Your task to perform on an android device: uninstall "Grab" Image 0: 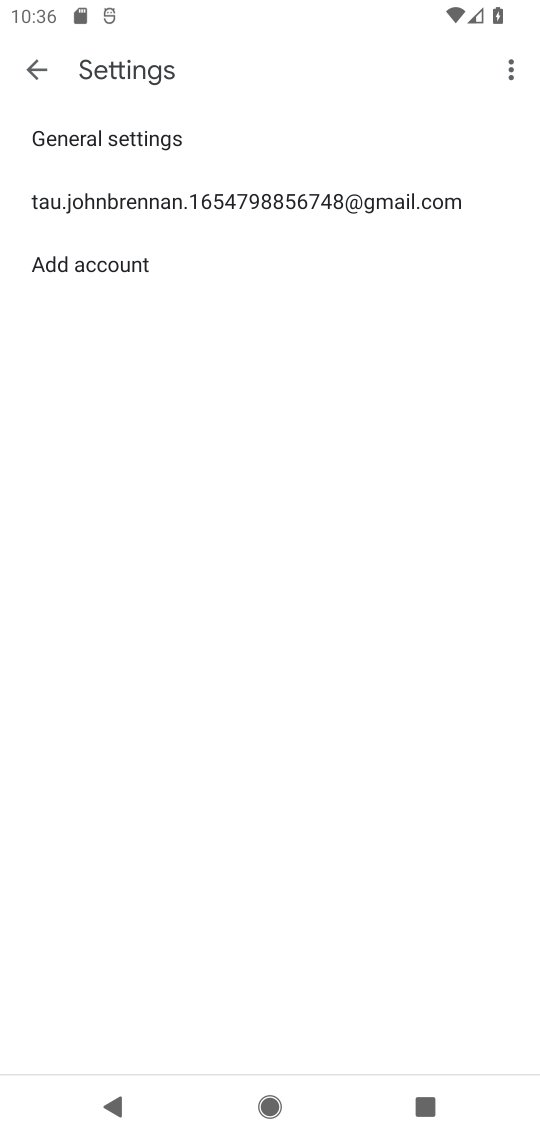
Step 0: press home button
Your task to perform on an android device: uninstall "Grab" Image 1: 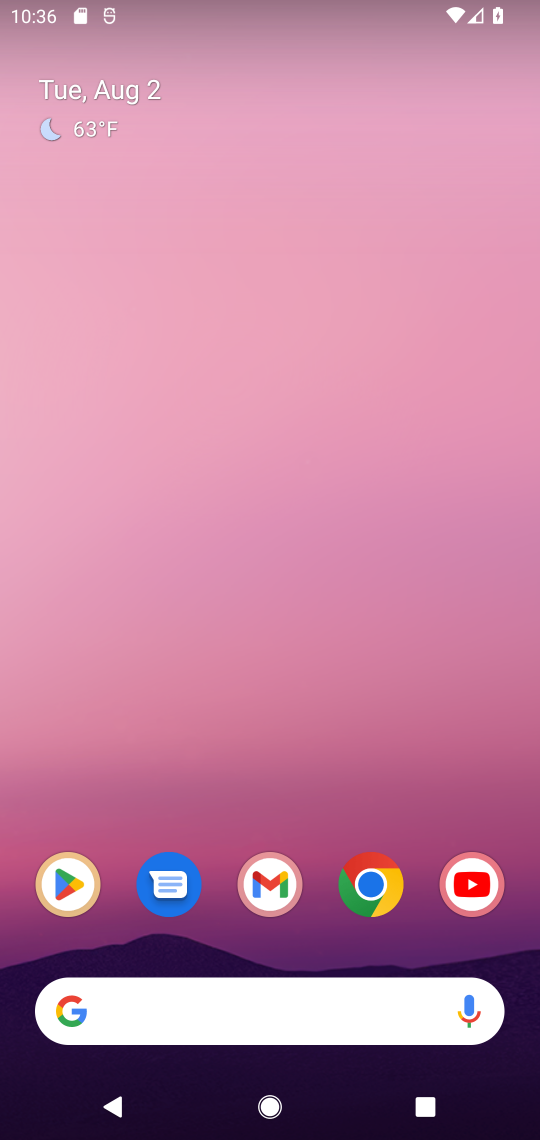
Step 1: click (76, 903)
Your task to perform on an android device: uninstall "Grab" Image 2: 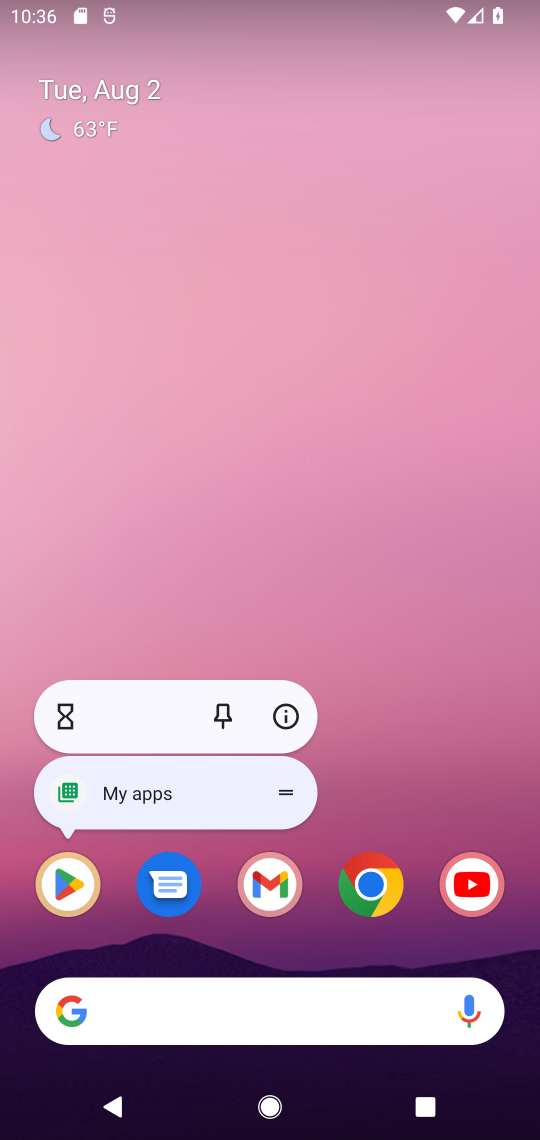
Step 2: click (73, 903)
Your task to perform on an android device: uninstall "Grab" Image 3: 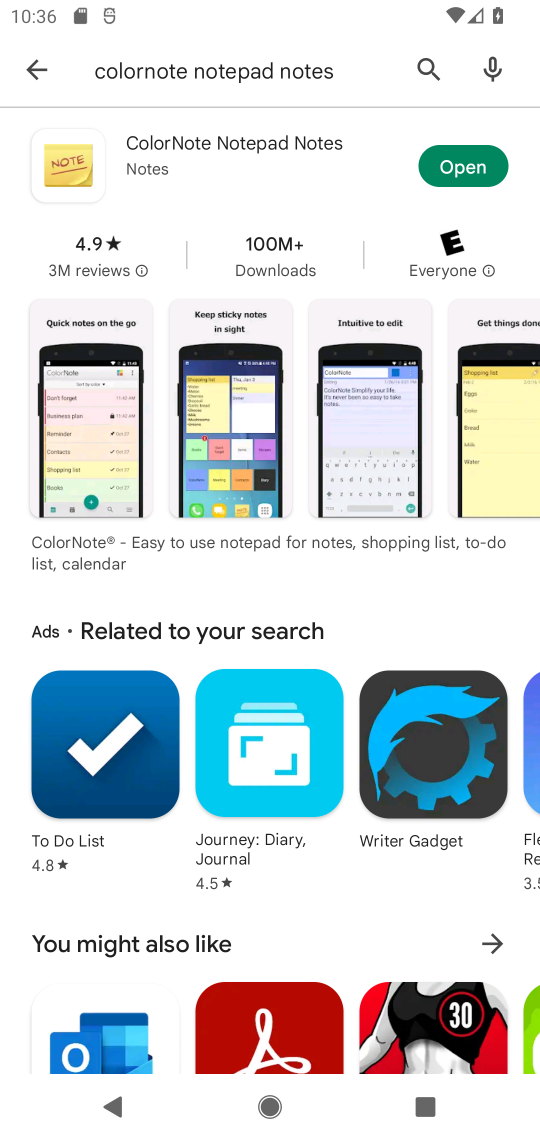
Step 3: click (278, 72)
Your task to perform on an android device: uninstall "Grab" Image 4: 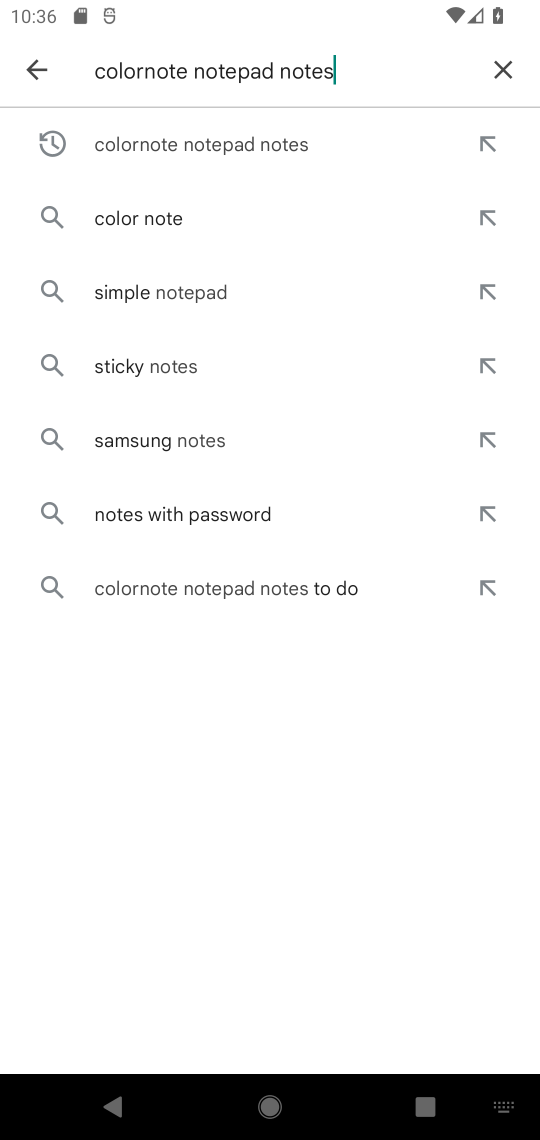
Step 4: click (508, 69)
Your task to perform on an android device: uninstall "Grab" Image 5: 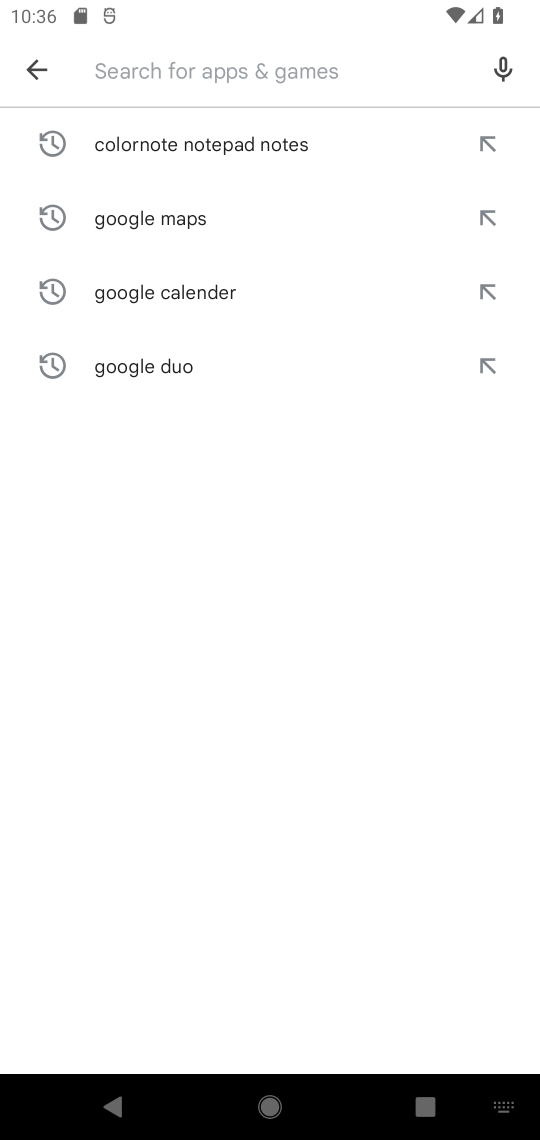
Step 5: type "Grab"
Your task to perform on an android device: uninstall "Grab" Image 6: 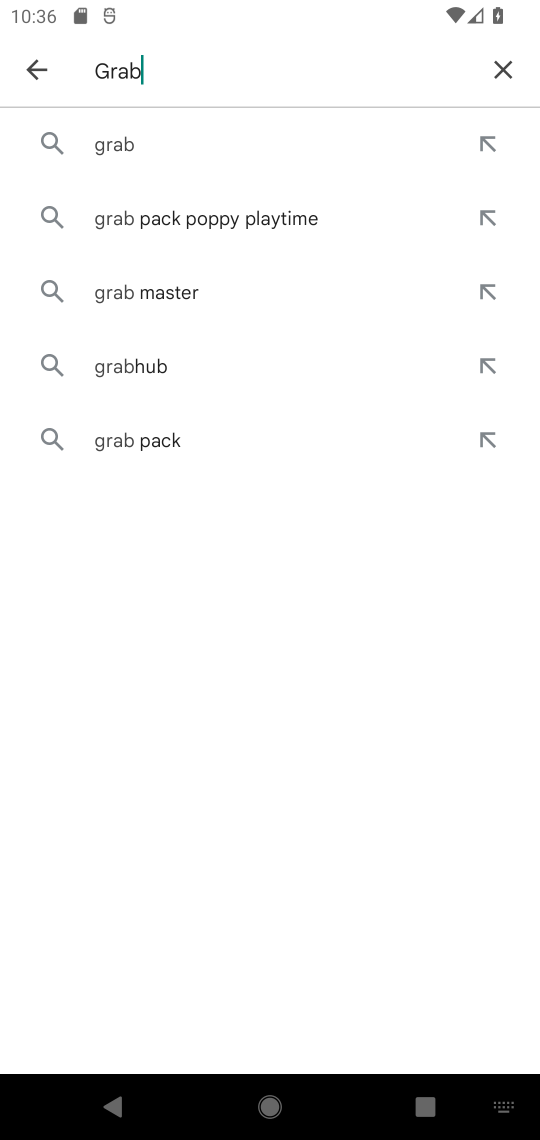
Step 6: click (163, 145)
Your task to perform on an android device: uninstall "Grab" Image 7: 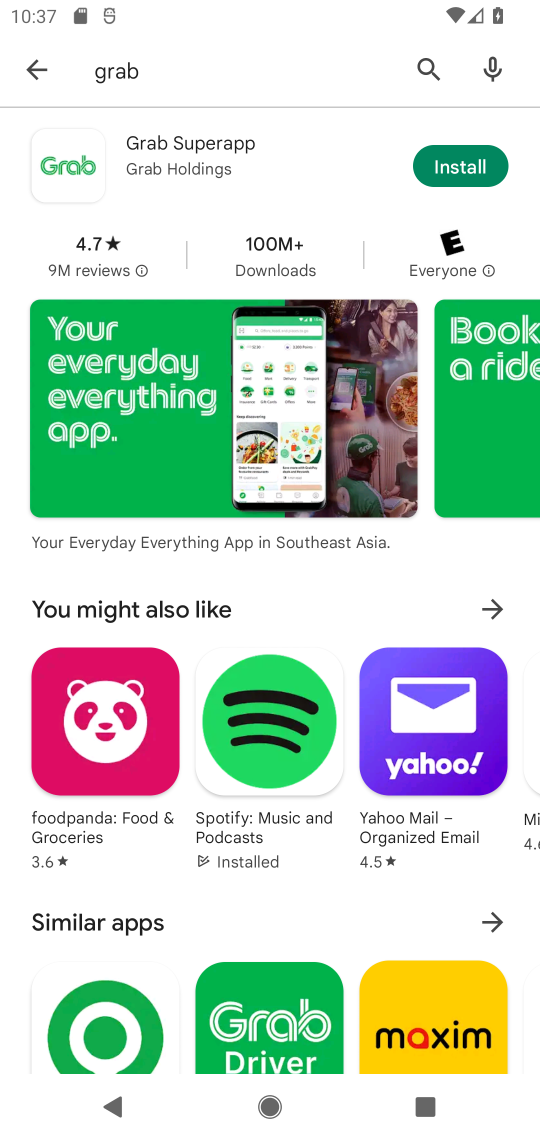
Step 7: task complete